Your task to perform on an android device: Toggle the flashlight Image 0: 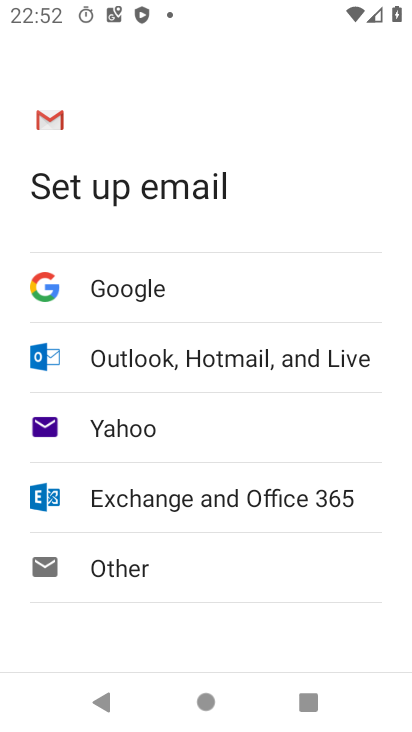
Step 0: press home button
Your task to perform on an android device: Toggle the flashlight Image 1: 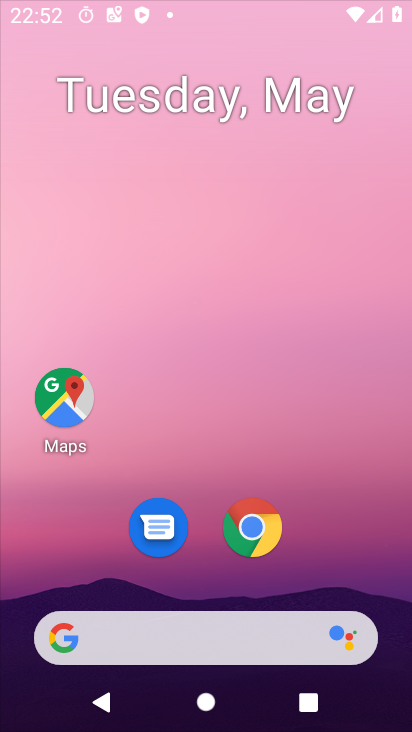
Step 1: drag from (181, 619) to (216, 9)
Your task to perform on an android device: Toggle the flashlight Image 2: 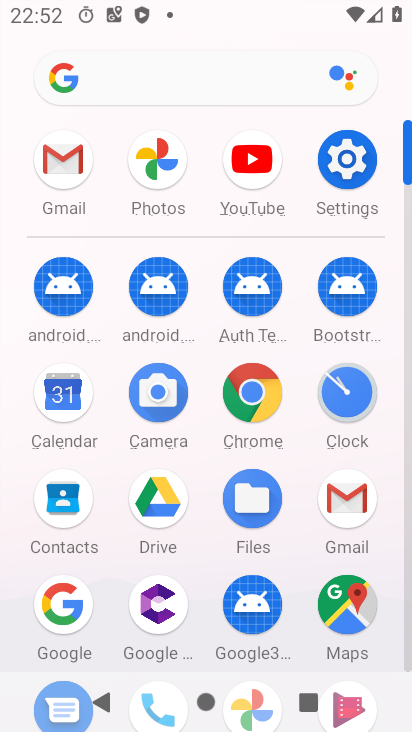
Step 2: click (343, 164)
Your task to perform on an android device: Toggle the flashlight Image 3: 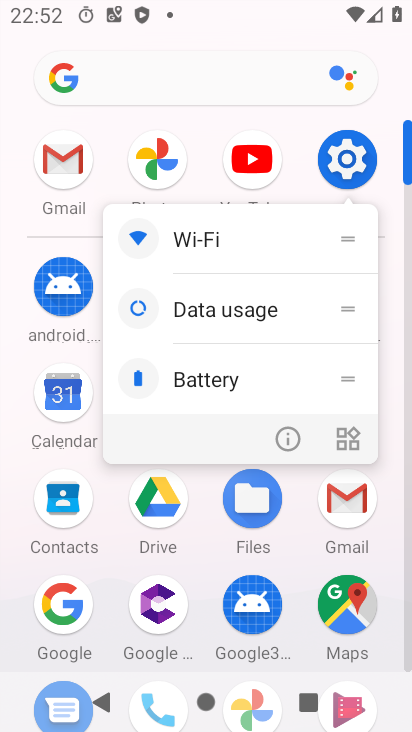
Step 3: click (273, 447)
Your task to perform on an android device: Toggle the flashlight Image 4: 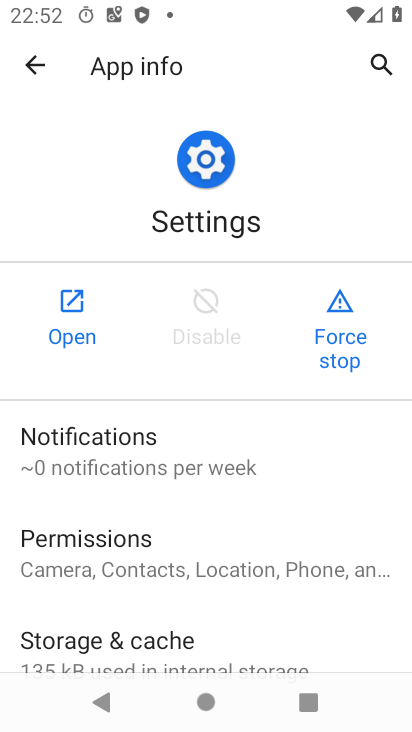
Step 4: click (80, 313)
Your task to perform on an android device: Toggle the flashlight Image 5: 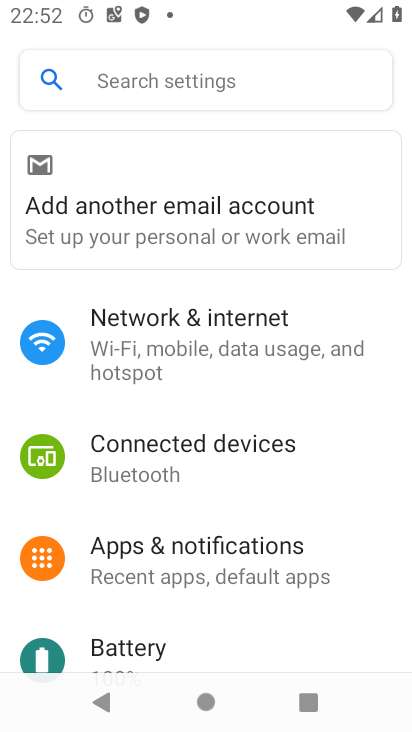
Step 5: drag from (222, 572) to (315, 265)
Your task to perform on an android device: Toggle the flashlight Image 6: 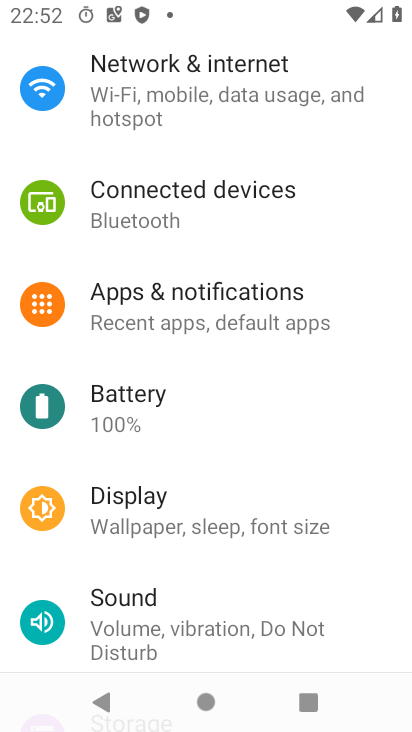
Step 6: drag from (220, 228) to (340, 721)
Your task to perform on an android device: Toggle the flashlight Image 7: 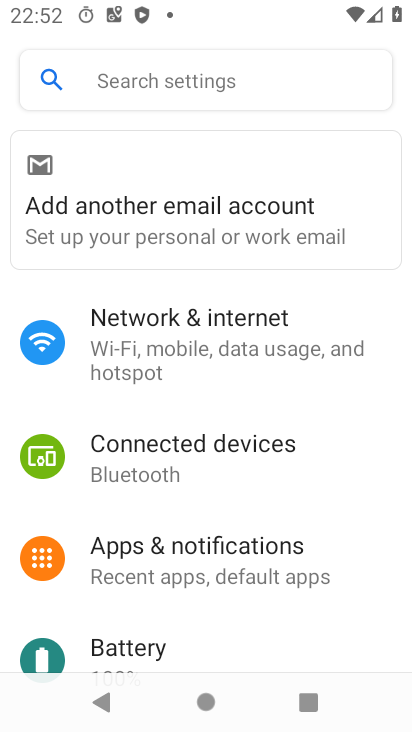
Step 7: click (135, 80)
Your task to perform on an android device: Toggle the flashlight Image 8: 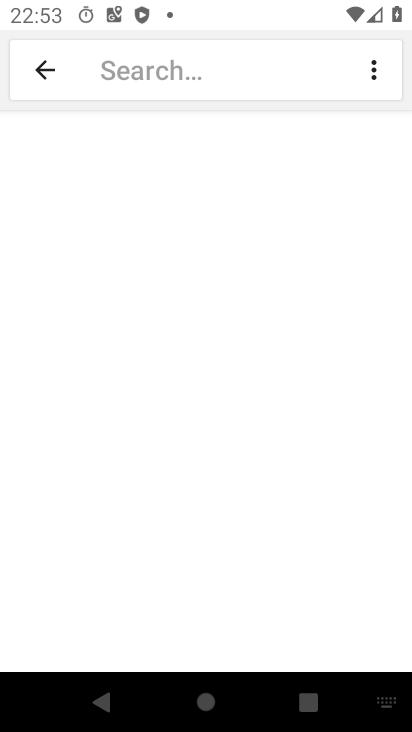
Step 8: click (170, 80)
Your task to perform on an android device: Toggle the flashlight Image 9: 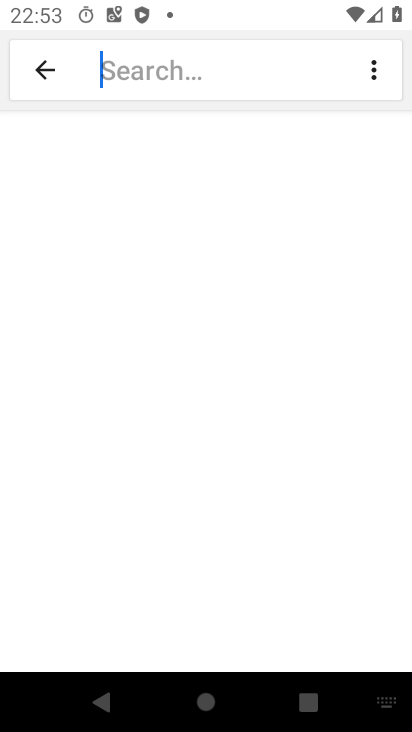
Step 9: type "flashlight"
Your task to perform on an android device: Toggle the flashlight Image 10: 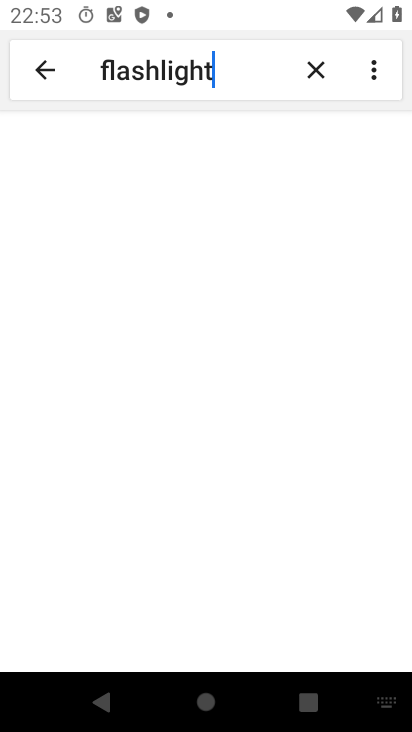
Step 10: type ""
Your task to perform on an android device: Toggle the flashlight Image 11: 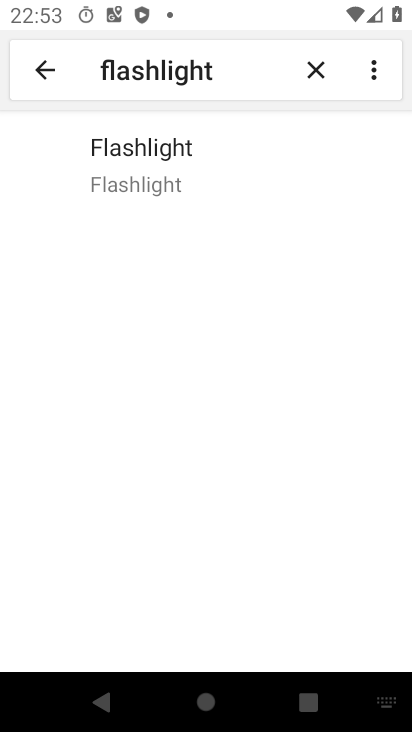
Step 11: click (181, 161)
Your task to perform on an android device: Toggle the flashlight Image 12: 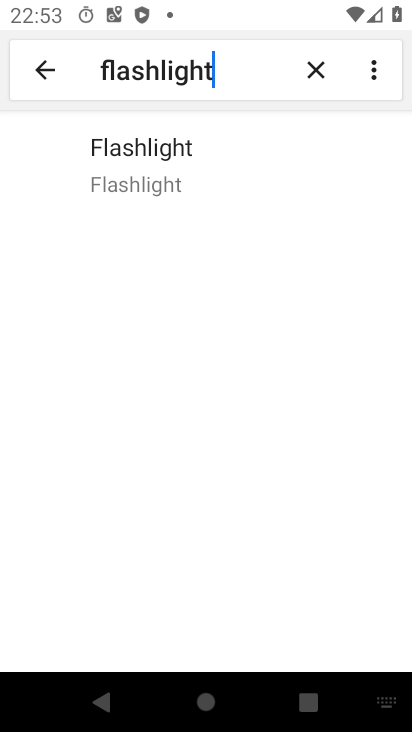
Step 12: click (161, 164)
Your task to perform on an android device: Toggle the flashlight Image 13: 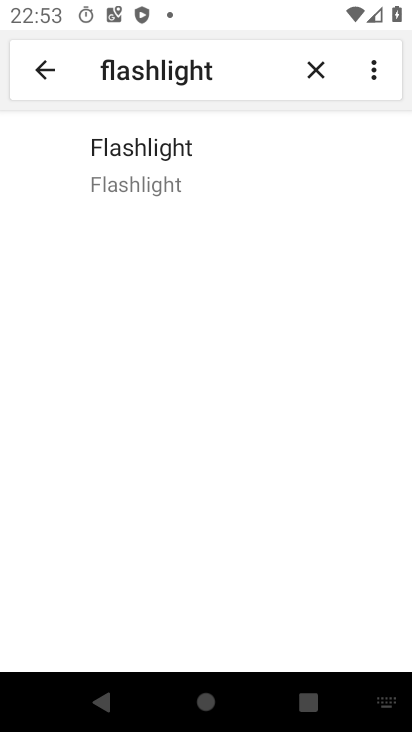
Step 13: task complete